Your task to perform on an android device: toggle data saver in the chrome app Image 0: 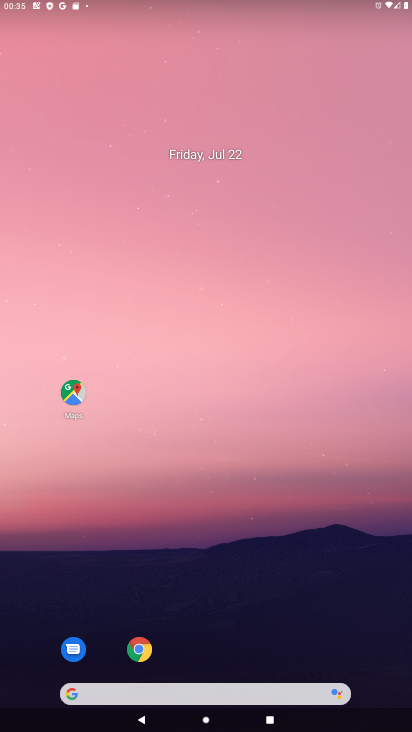
Step 0: drag from (269, 641) to (249, 165)
Your task to perform on an android device: toggle data saver in the chrome app Image 1: 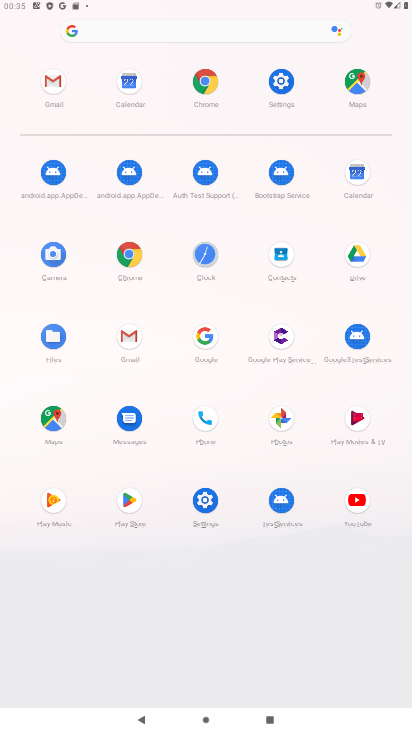
Step 1: click (209, 79)
Your task to perform on an android device: toggle data saver in the chrome app Image 2: 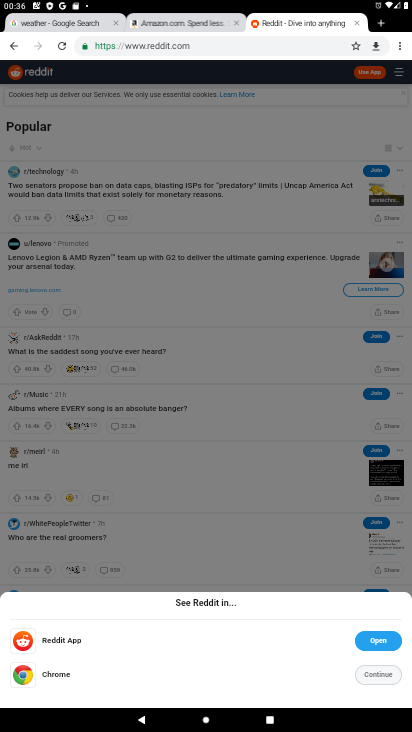
Step 2: drag from (403, 41) to (322, 334)
Your task to perform on an android device: toggle data saver in the chrome app Image 3: 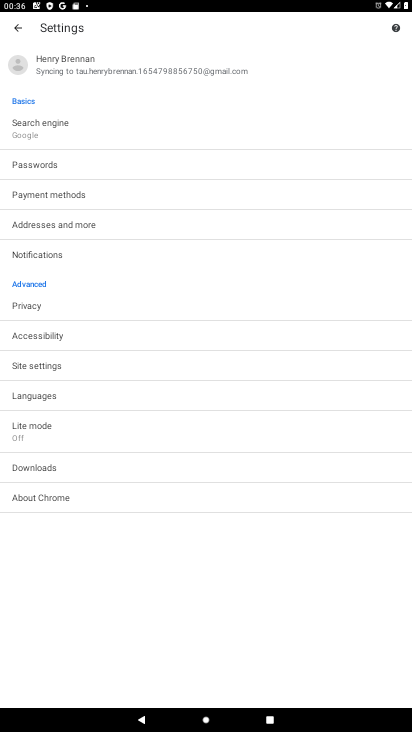
Step 3: click (74, 434)
Your task to perform on an android device: toggle data saver in the chrome app Image 4: 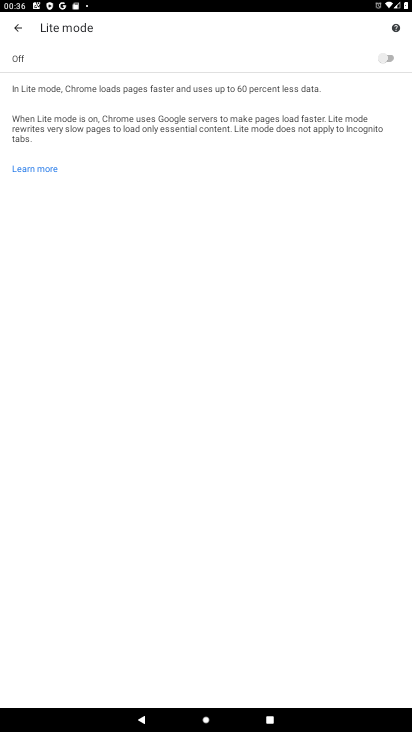
Step 4: task complete